Your task to perform on an android device: turn on improve location accuracy Image 0: 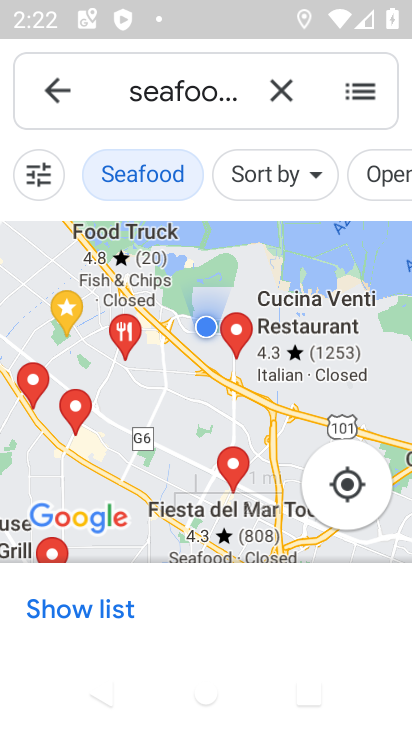
Step 0: press back button
Your task to perform on an android device: turn on improve location accuracy Image 1: 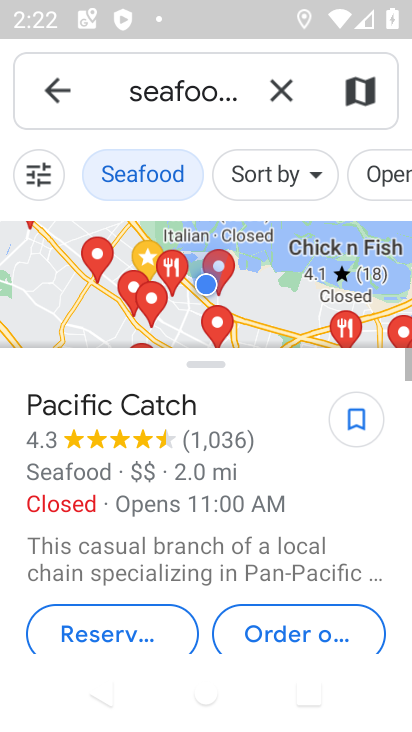
Step 1: click (64, 79)
Your task to perform on an android device: turn on improve location accuracy Image 2: 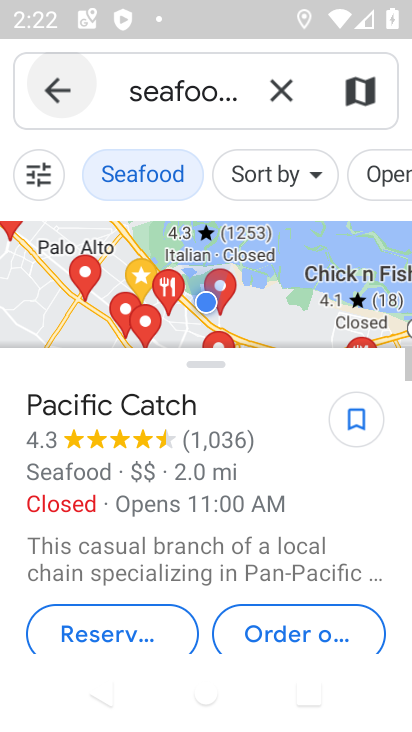
Step 2: click (53, 99)
Your task to perform on an android device: turn on improve location accuracy Image 3: 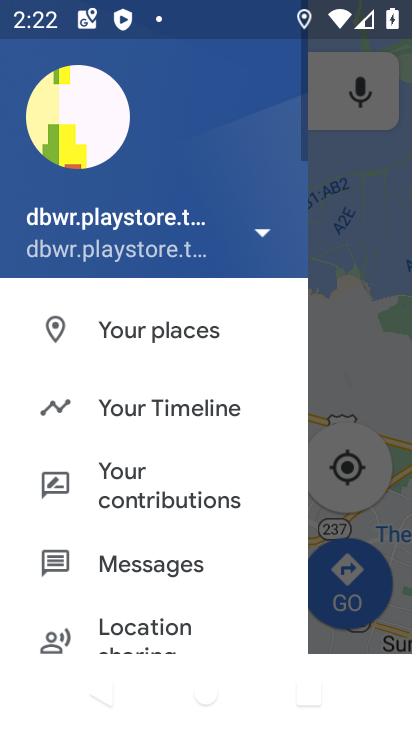
Step 3: press home button
Your task to perform on an android device: turn on improve location accuracy Image 4: 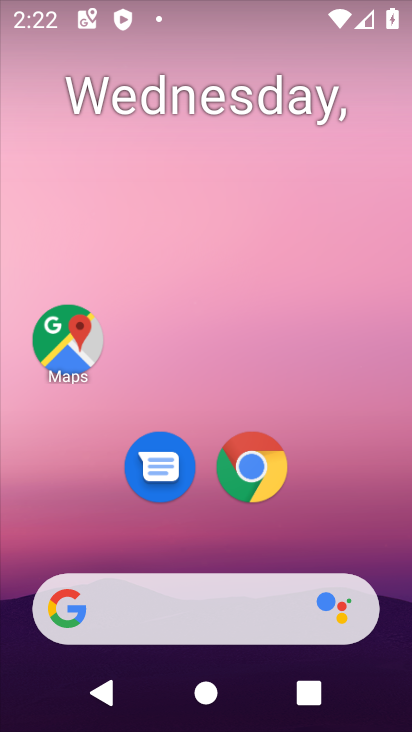
Step 4: drag from (340, 500) to (171, 52)
Your task to perform on an android device: turn on improve location accuracy Image 5: 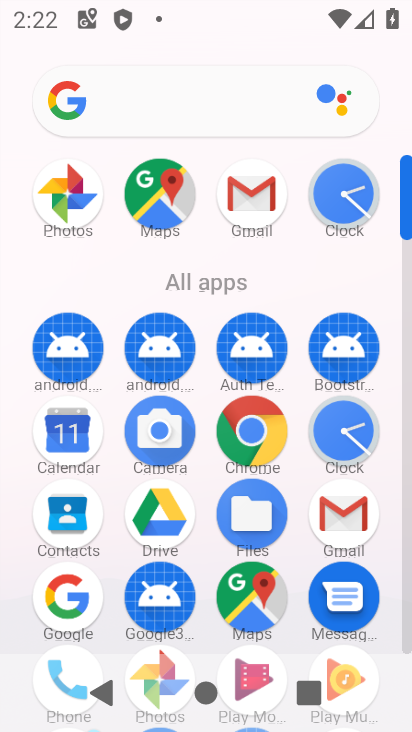
Step 5: drag from (384, 530) to (370, 139)
Your task to perform on an android device: turn on improve location accuracy Image 6: 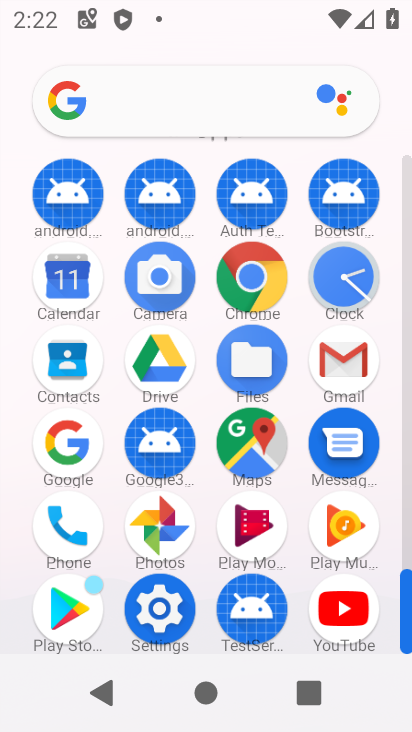
Step 6: click (143, 604)
Your task to perform on an android device: turn on improve location accuracy Image 7: 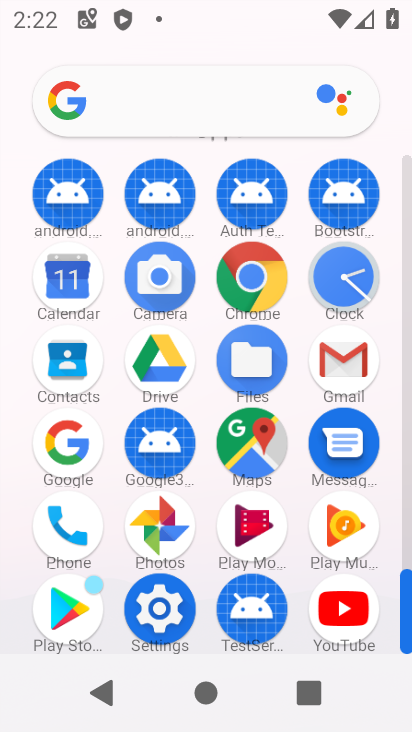
Step 7: click (136, 602)
Your task to perform on an android device: turn on improve location accuracy Image 8: 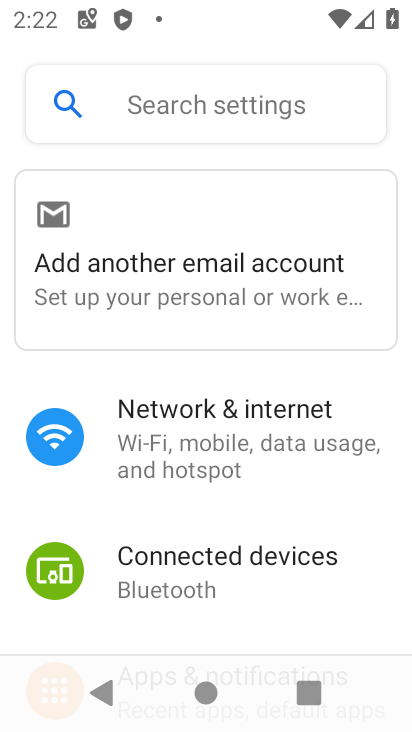
Step 8: drag from (216, 539) to (184, 291)
Your task to perform on an android device: turn on improve location accuracy Image 9: 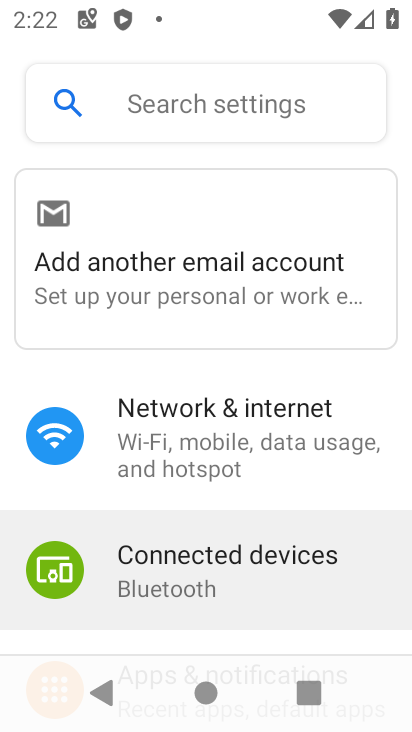
Step 9: drag from (233, 416) to (227, 297)
Your task to perform on an android device: turn on improve location accuracy Image 10: 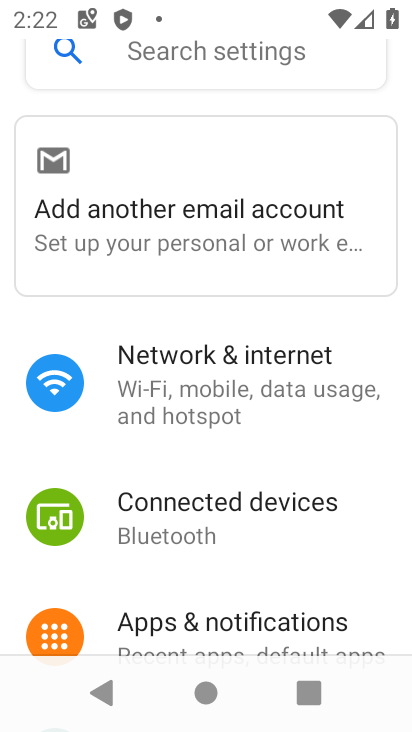
Step 10: drag from (256, 471) to (249, 326)
Your task to perform on an android device: turn on improve location accuracy Image 11: 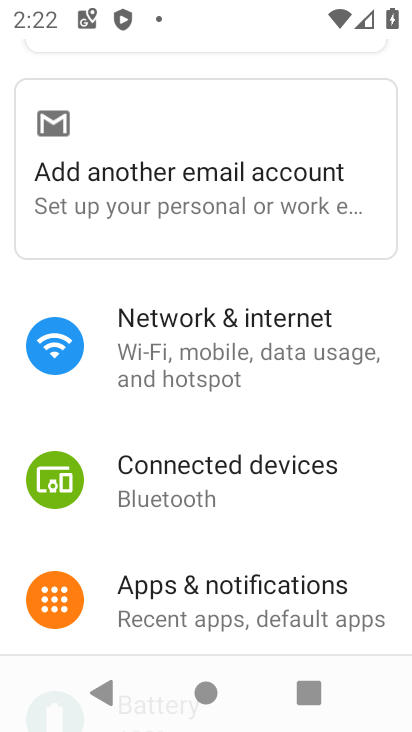
Step 11: drag from (207, 498) to (169, 285)
Your task to perform on an android device: turn on improve location accuracy Image 12: 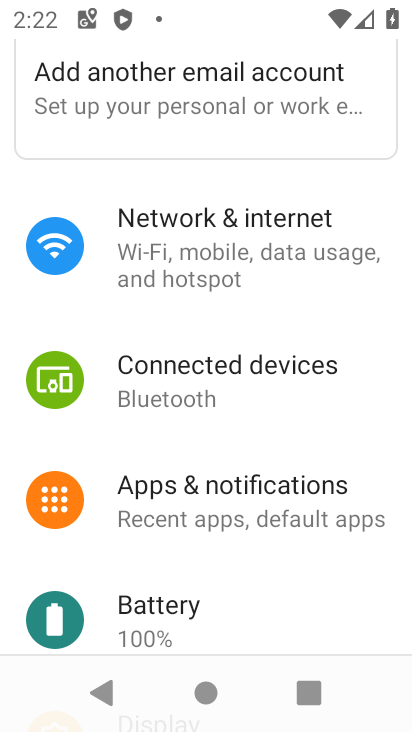
Step 12: drag from (257, 512) to (235, 278)
Your task to perform on an android device: turn on improve location accuracy Image 13: 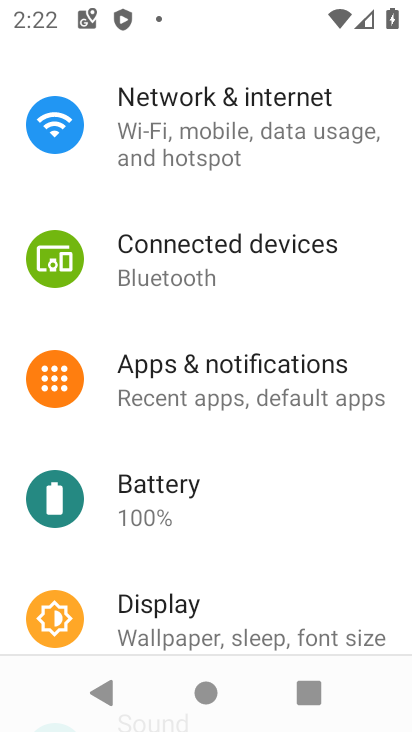
Step 13: drag from (247, 522) to (201, 185)
Your task to perform on an android device: turn on improve location accuracy Image 14: 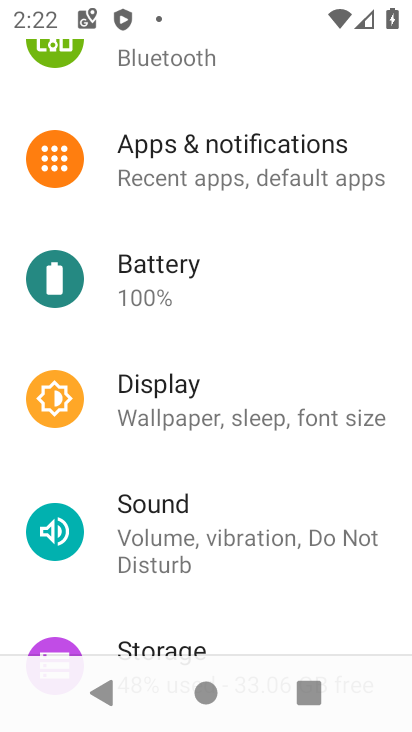
Step 14: drag from (178, 503) to (170, 262)
Your task to perform on an android device: turn on improve location accuracy Image 15: 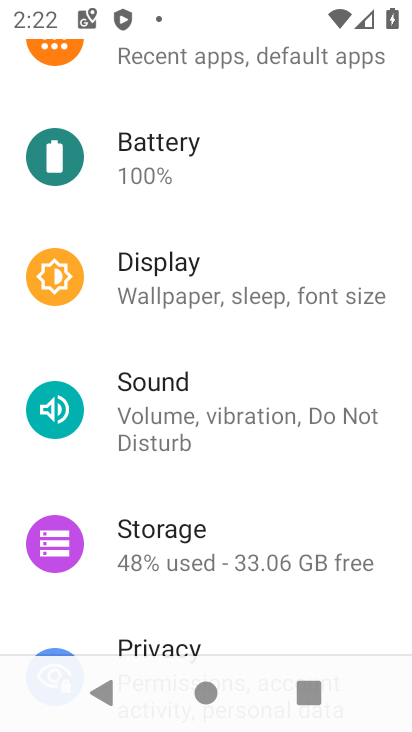
Step 15: drag from (191, 552) to (163, 242)
Your task to perform on an android device: turn on improve location accuracy Image 16: 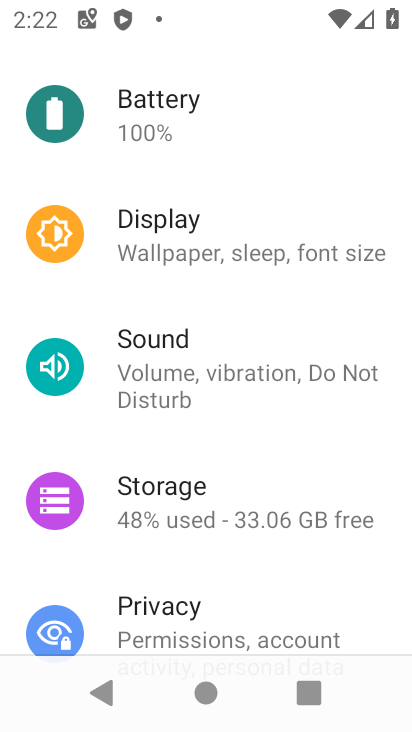
Step 16: drag from (230, 580) to (169, 189)
Your task to perform on an android device: turn on improve location accuracy Image 17: 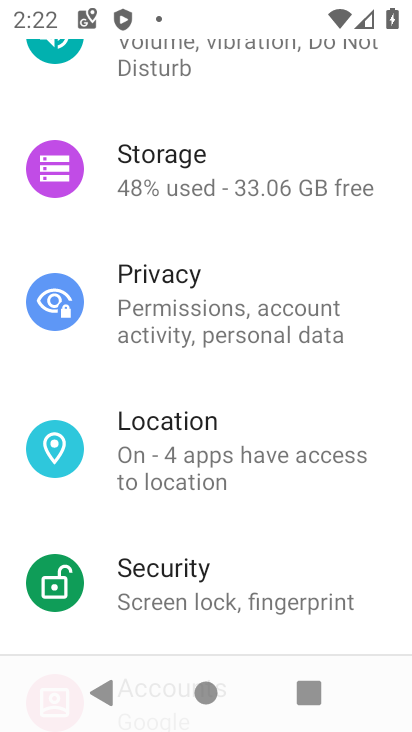
Step 17: click (194, 457)
Your task to perform on an android device: turn on improve location accuracy Image 18: 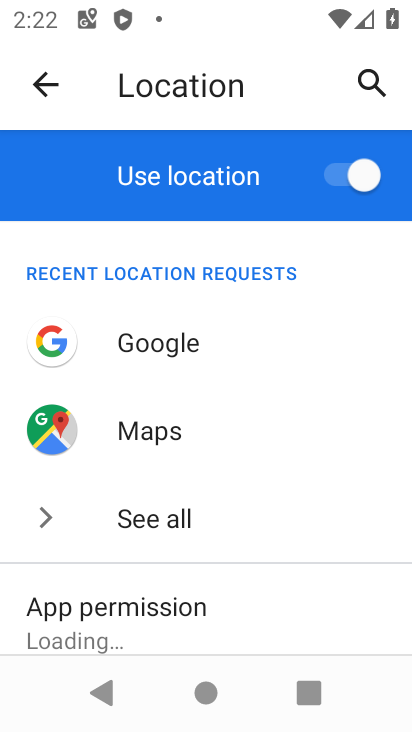
Step 18: drag from (212, 432) to (150, 224)
Your task to perform on an android device: turn on improve location accuracy Image 19: 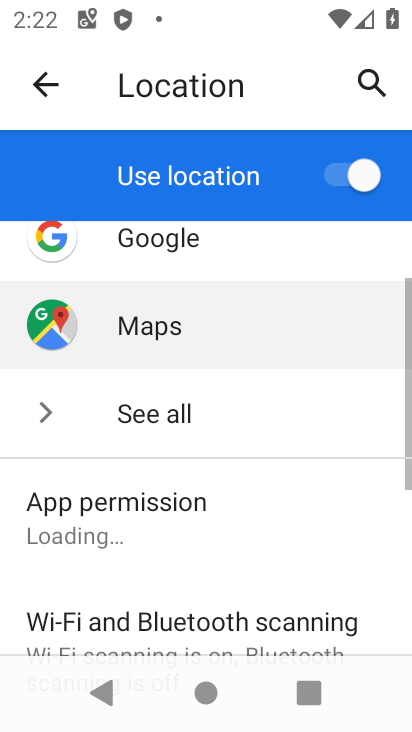
Step 19: drag from (222, 382) to (203, 128)
Your task to perform on an android device: turn on improve location accuracy Image 20: 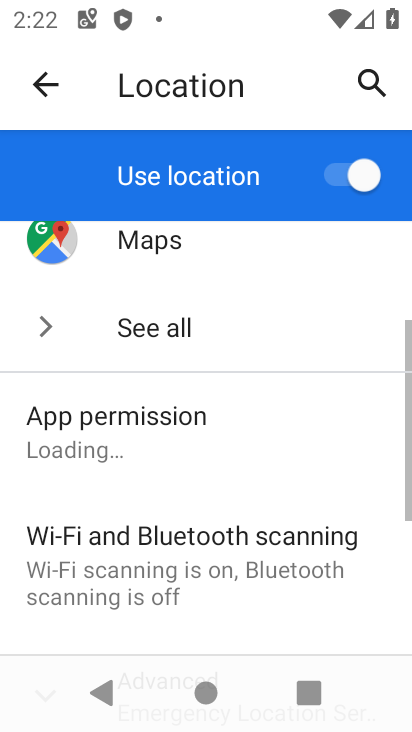
Step 20: drag from (265, 438) to (211, 123)
Your task to perform on an android device: turn on improve location accuracy Image 21: 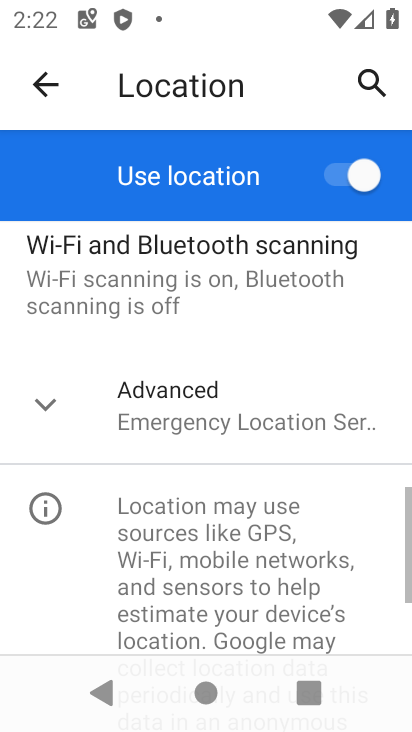
Step 21: drag from (176, 341) to (231, 497)
Your task to perform on an android device: turn on improve location accuracy Image 22: 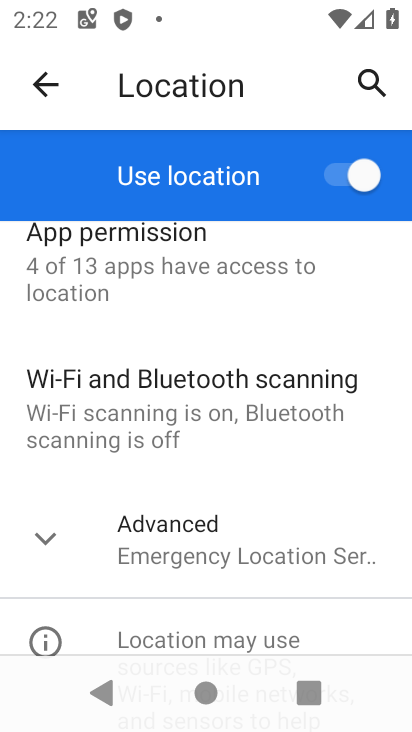
Step 22: click (184, 549)
Your task to perform on an android device: turn on improve location accuracy Image 23: 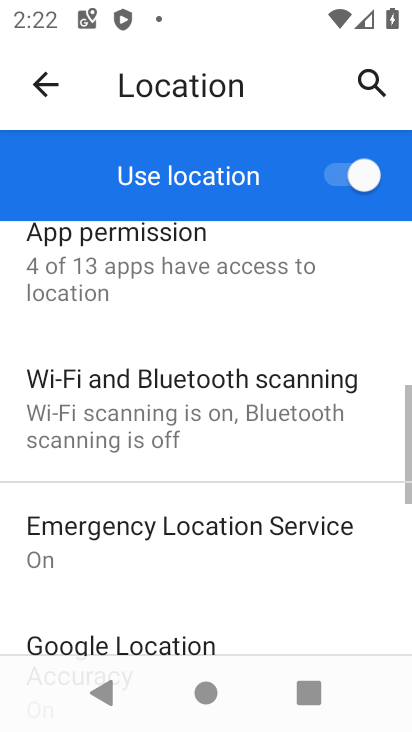
Step 23: drag from (176, 536) to (152, 183)
Your task to perform on an android device: turn on improve location accuracy Image 24: 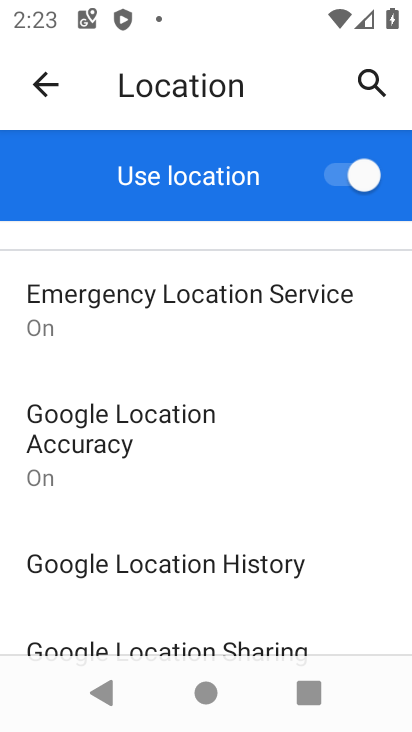
Step 24: click (74, 443)
Your task to perform on an android device: turn on improve location accuracy Image 25: 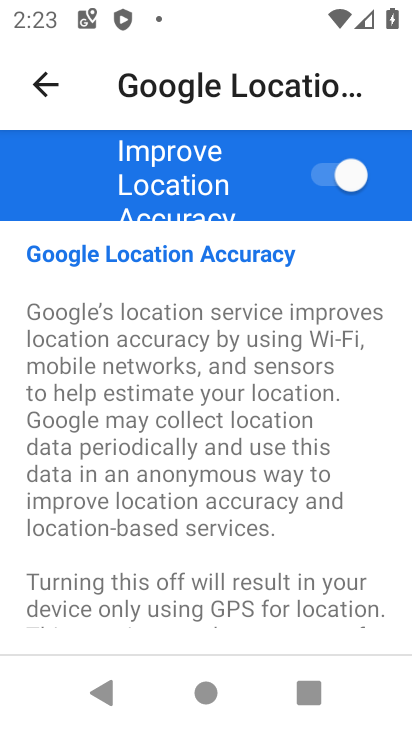
Step 25: task complete